Your task to perform on an android device: search for starred emails in the gmail app Image 0: 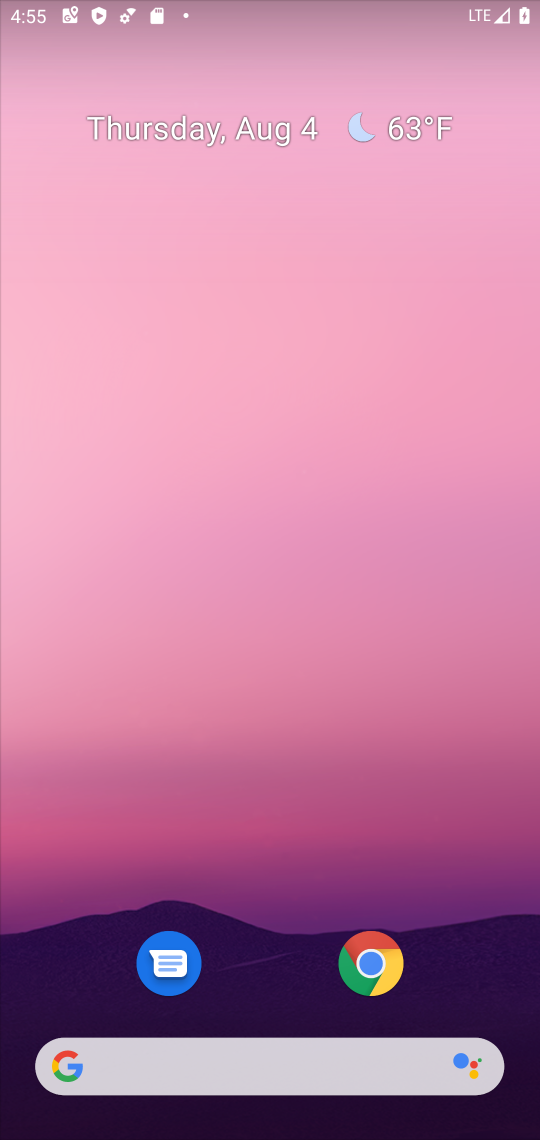
Step 0: press home button
Your task to perform on an android device: search for starred emails in the gmail app Image 1: 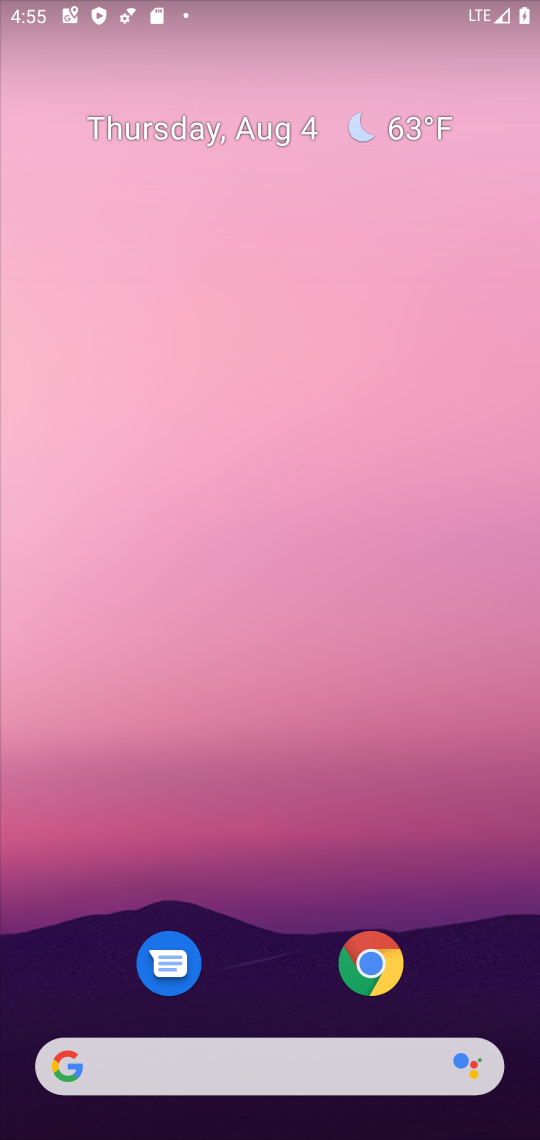
Step 1: drag from (259, 951) to (245, 107)
Your task to perform on an android device: search for starred emails in the gmail app Image 2: 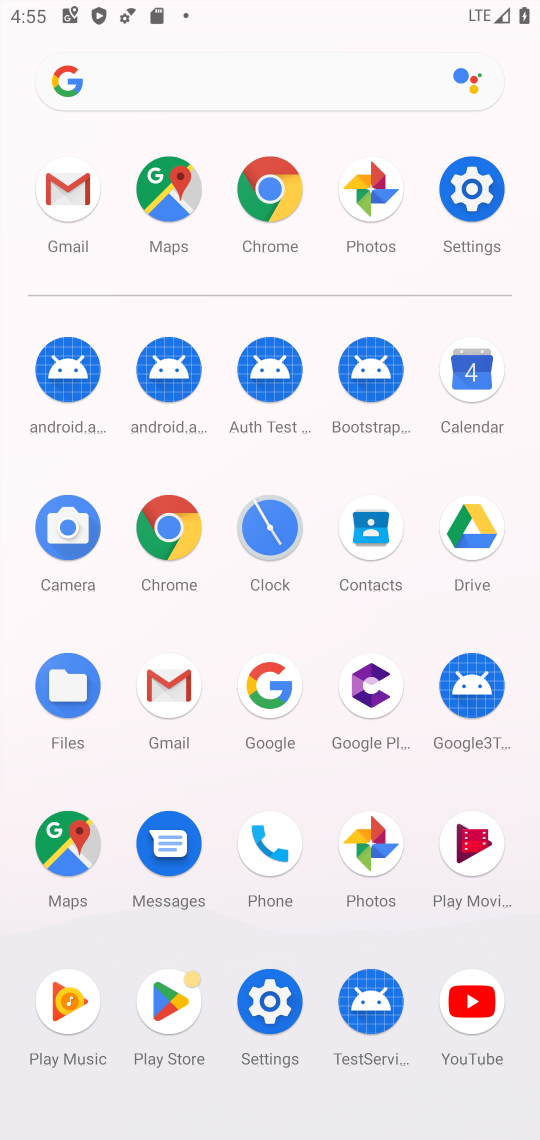
Step 2: click (158, 684)
Your task to perform on an android device: search for starred emails in the gmail app Image 3: 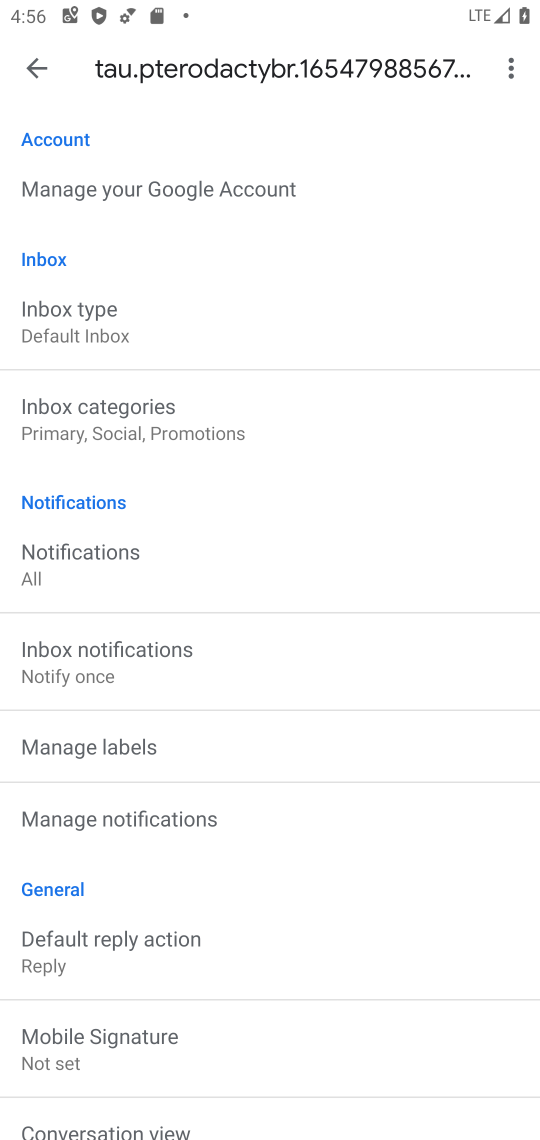
Step 3: click (36, 58)
Your task to perform on an android device: search for starred emails in the gmail app Image 4: 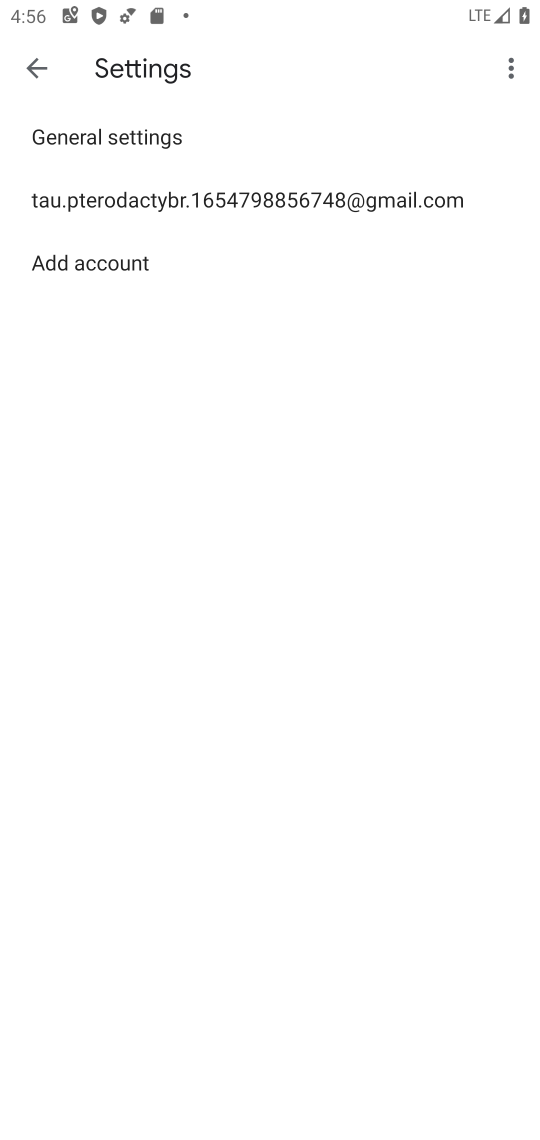
Step 4: click (40, 67)
Your task to perform on an android device: search for starred emails in the gmail app Image 5: 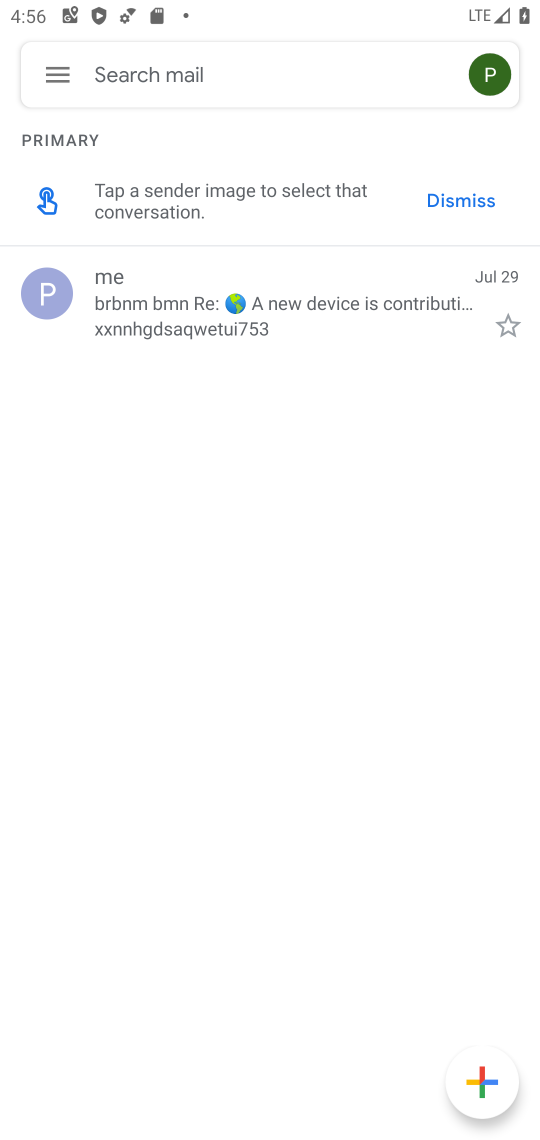
Step 5: click (49, 65)
Your task to perform on an android device: search for starred emails in the gmail app Image 6: 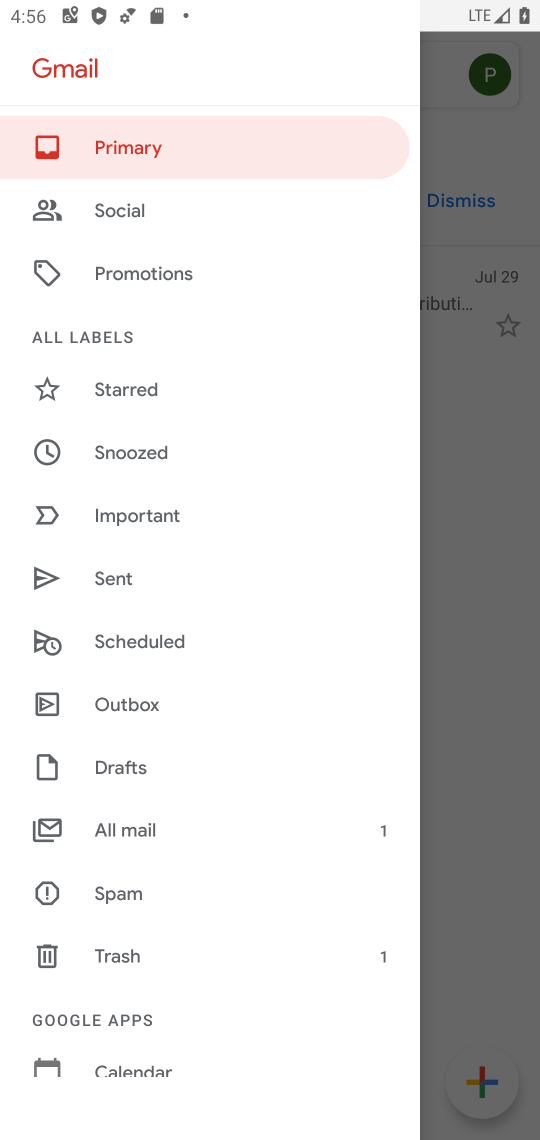
Step 6: click (132, 380)
Your task to perform on an android device: search for starred emails in the gmail app Image 7: 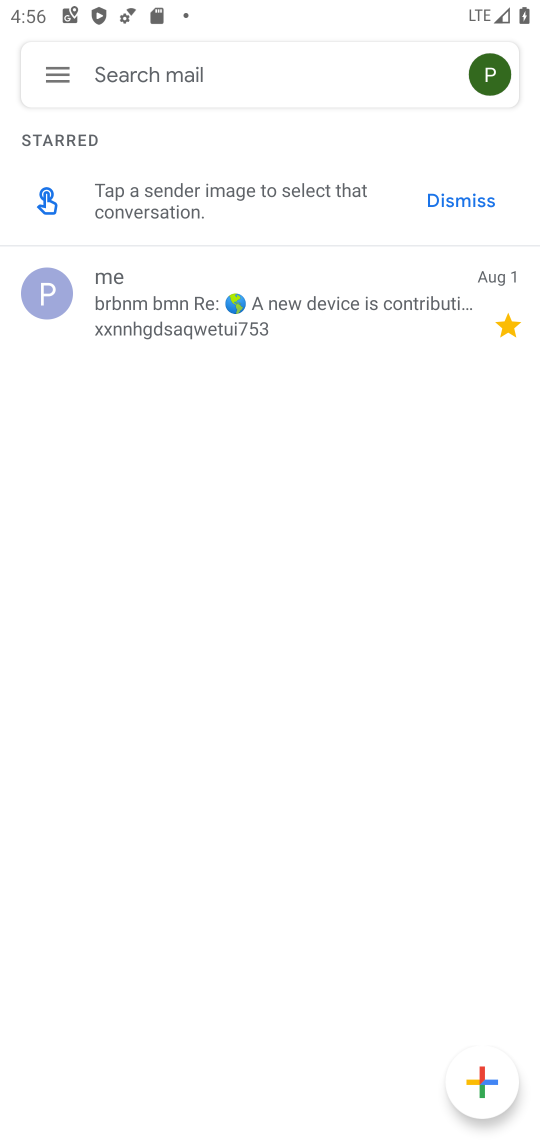
Step 7: task complete